Your task to perform on an android device: Open Chrome and go to the settings page Image 0: 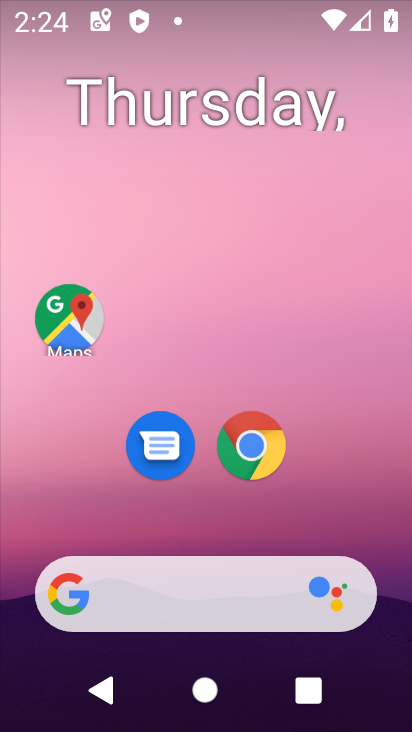
Step 0: click (255, 435)
Your task to perform on an android device: Open Chrome and go to the settings page Image 1: 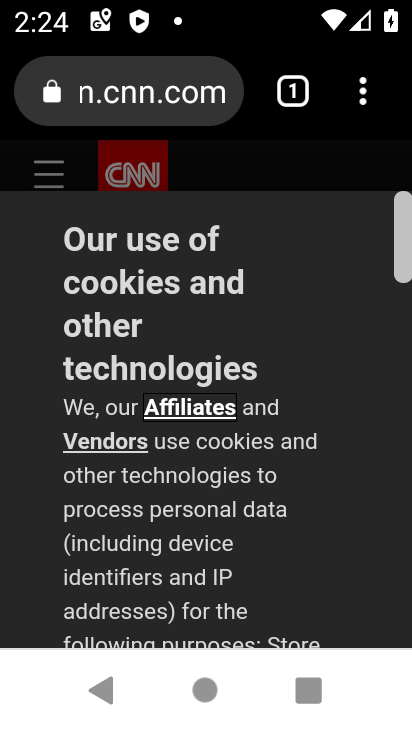
Step 1: click (368, 95)
Your task to perform on an android device: Open Chrome and go to the settings page Image 2: 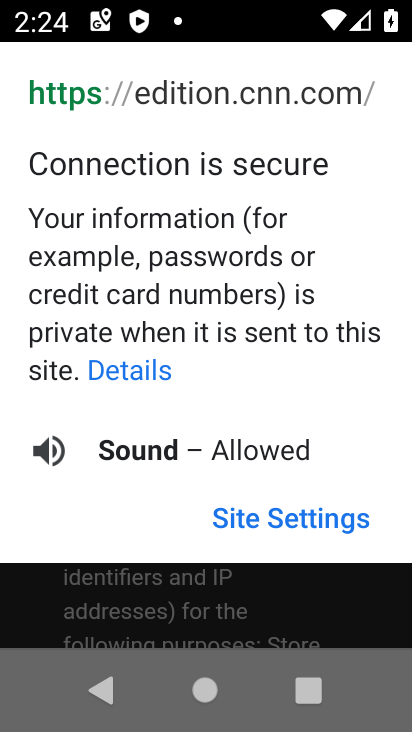
Step 2: press back button
Your task to perform on an android device: Open Chrome and go to the settings page Image 3: 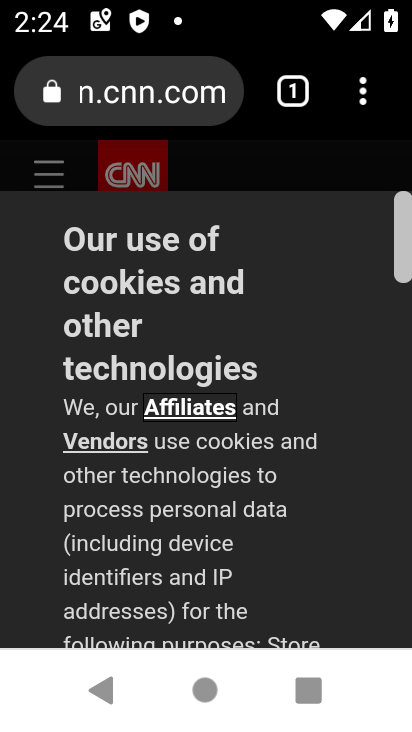
Step 3: click (388, 90)
Your task to perform on an android device: Open Chrome and go to the settings page Image 4: 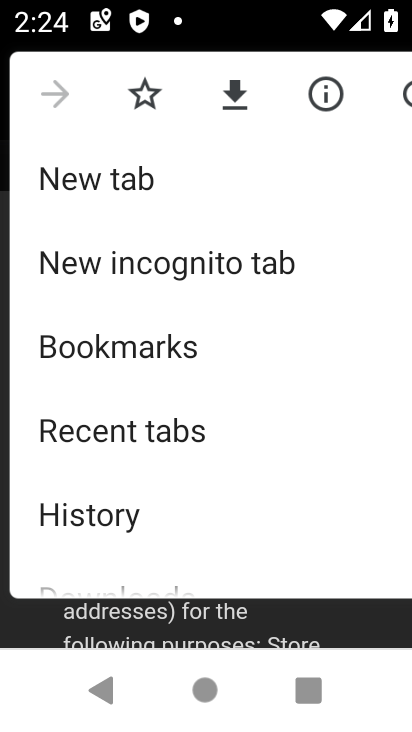
Step 4: drag from (194, 531) to (306, 103)
Your task to perform on an android device: Open Chrome and go to the settings page Image 5: 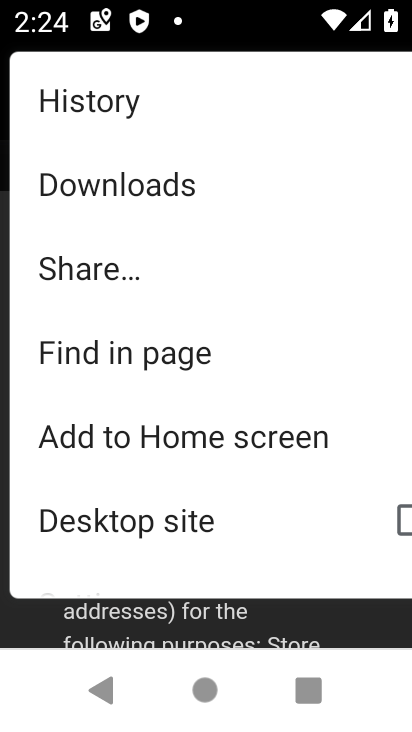
Step 5: drag from (191, 505) to (258, 201)
Your task to perform on an android device: Open Chrome and go to the settings page Image 6: 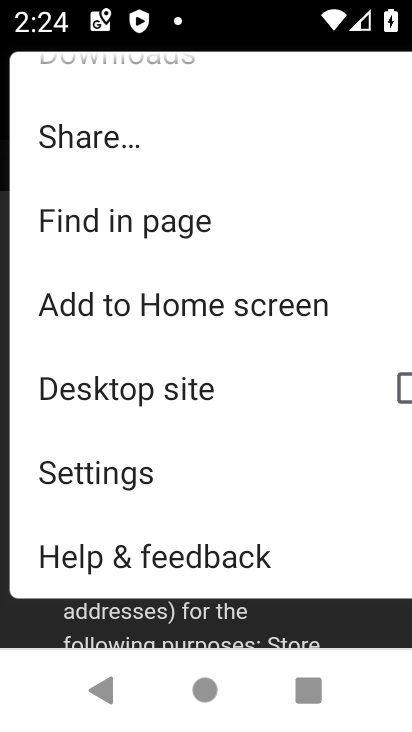
Step 6: click (156, 467)
Your task to perform on an android device: Open Chrome and go to the settings page Image 7: 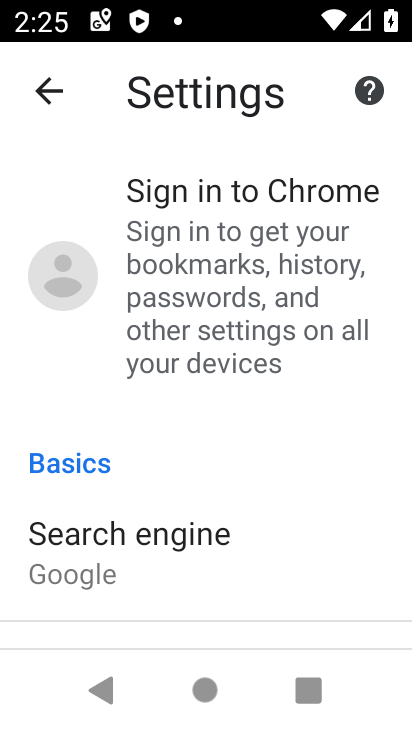
Step 7: task complete